Your task to perform on an android device: add a contact in the contacts app Image 0: 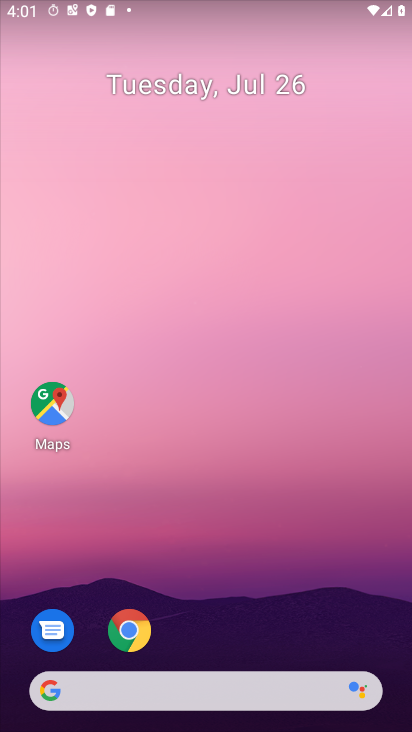
Step 0: drag from (237, 626) to (161, 72)
Your task to perform on an android device: add a contact in the contacts app Image 1: 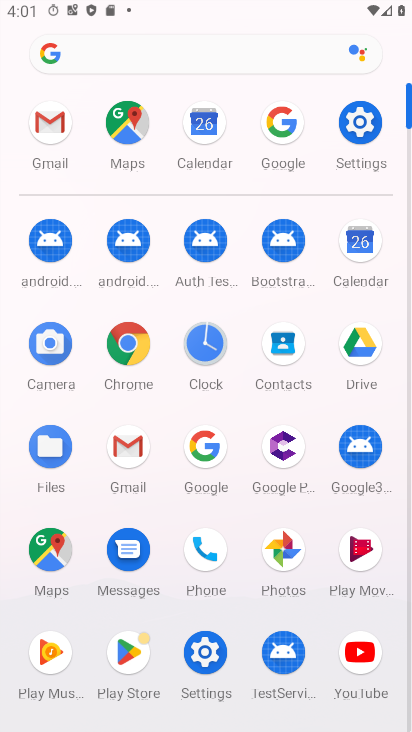
Step 1: click (292, 339)
Your task to perform on an android device: add a contact in the contacts app Image 2: 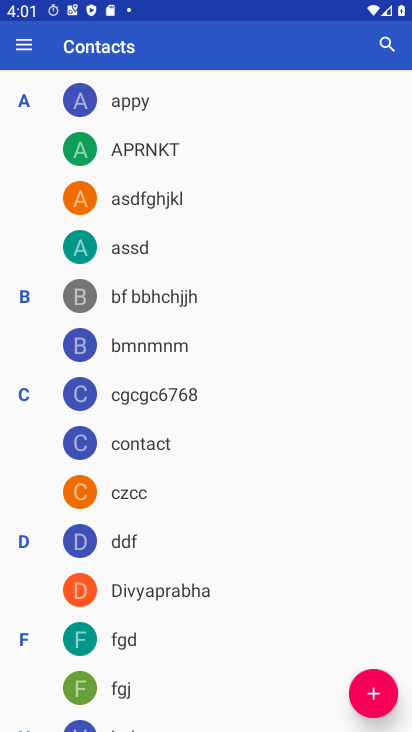
Step 2: click (364, 703)
Your task to perform on an android device: add a contact in the contacts app Image 3: 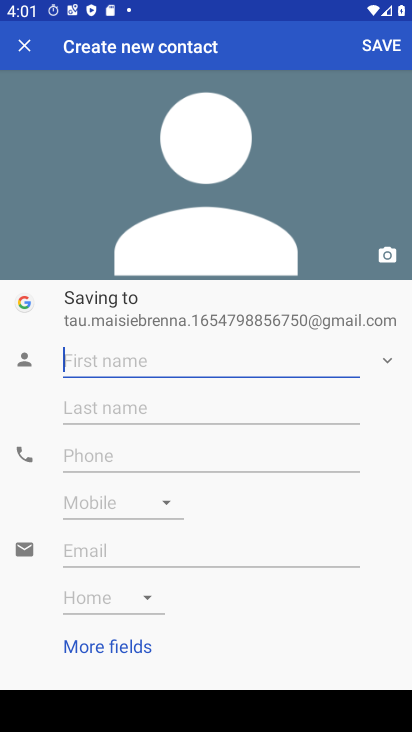
Step 3: click (220, 355)
Your task to perform on an android device: add a contact in the contacts app Image 4: 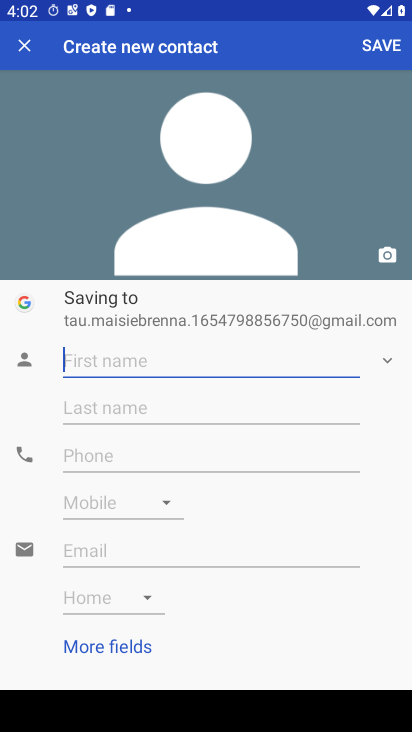
Step 4: type "ghbgkhgkh"
Your task to perform on an android device: add a contact in the contacts app Image 5: 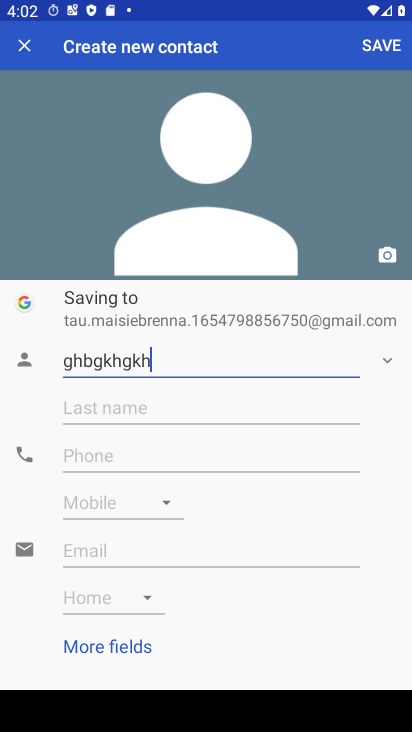
Step 5: click (224, 466)
Your task to perform on an android device: add a contact in the contacts app Image 6: 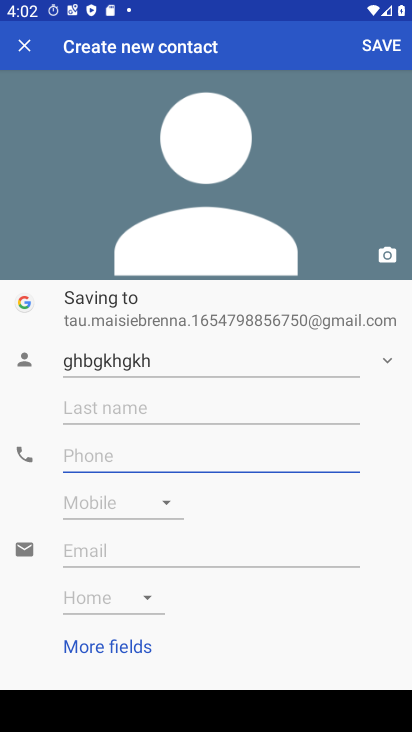
Step 6: type "687687678"
Your task to perform on an android device: add a contact in the contacts app Image 7: 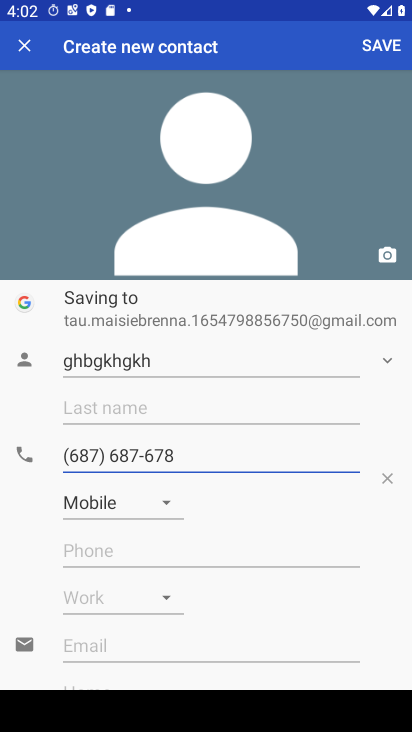
Step 7: click (391, 40)
Your task to perform on an android device: add a contact in the contacts app Image 8: 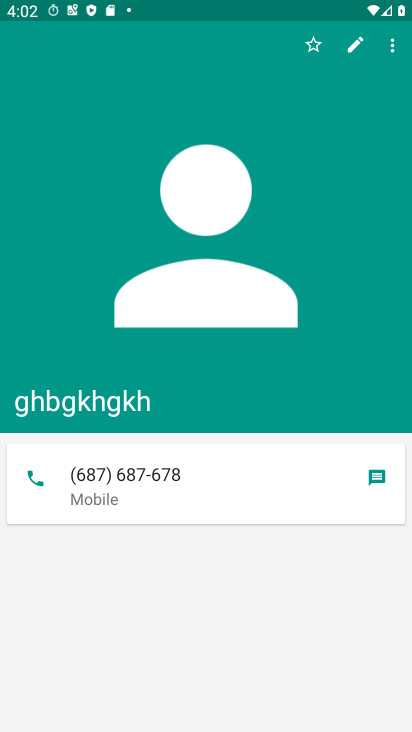
Step 8: task complete